Your task to perform on an android device: Open the phone app and click the voicemail tab. Image 0: 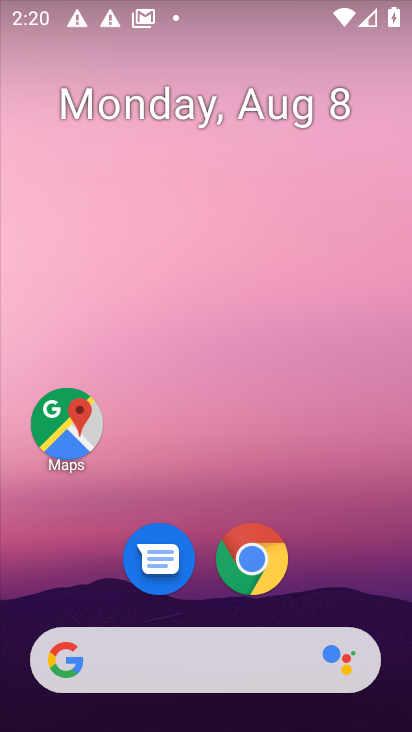
Step 0: drag from (192, 656) to (238, 275)
Your task to perform on an android device: Open the phone app and click the voicemail tab. Image 1: 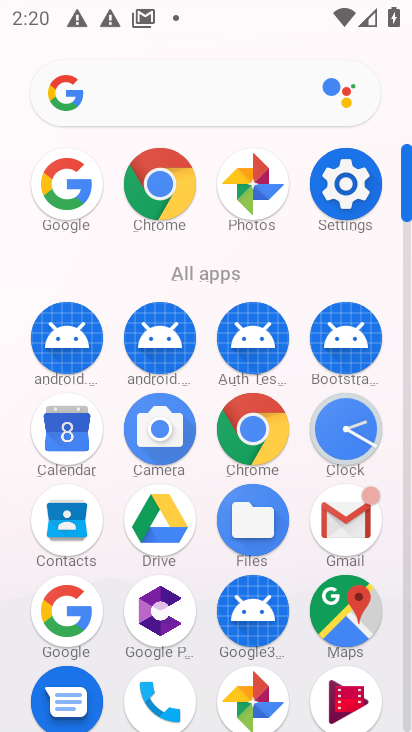
Step 1: click (153, 705)
Your task to perform on an android device: Open the phone app and click the voicemail tab. Image 2: 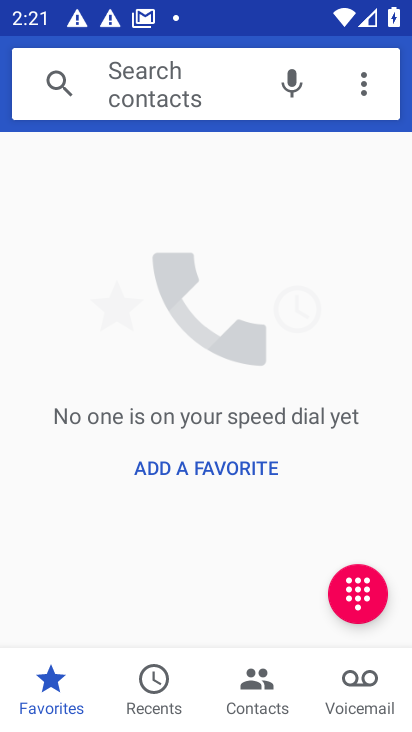
Step 2: click (357, 684)
Your task to perform on an android device: Open the phone app and click the voicemail tab. Image 3: 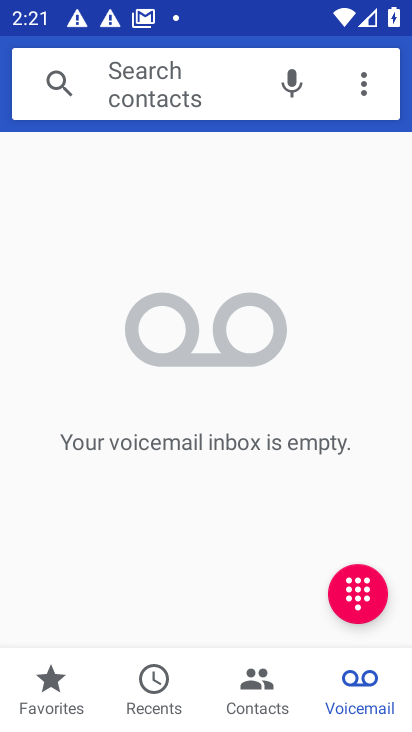
Step 3: task complete